Your task to perform on an android device: clear history in the chrome app Image 0: 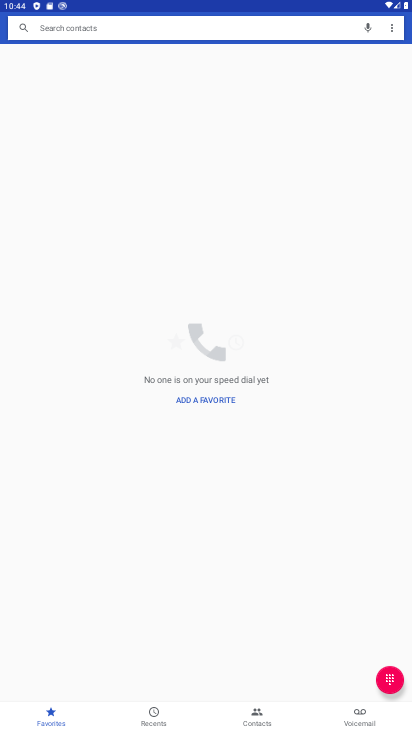
Step 0: press home button
Your task to perform on an android device: clear history in the chrome app Image 1: 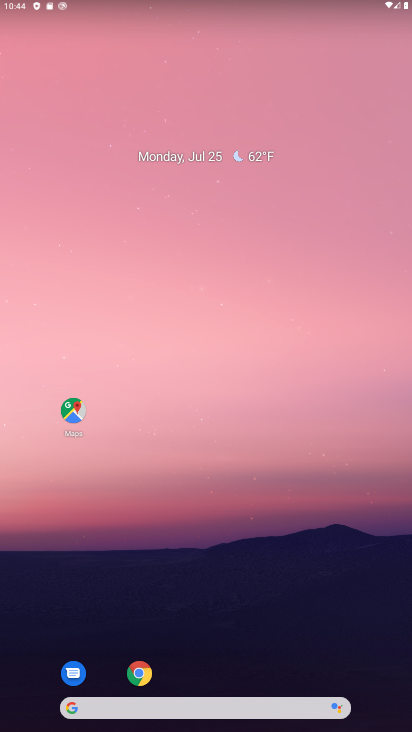
Step 1: click (142, 676)
Your task to perform on an android device: clear history in the chrome app Image 2: 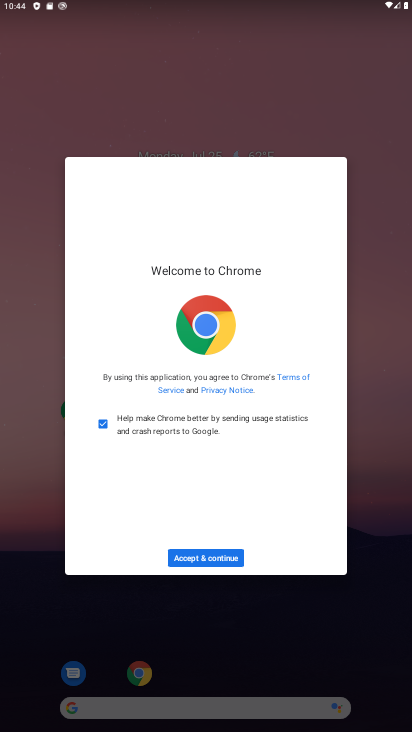
Step 2: click (196, 557)
Your task to perform on an android device: clear history in the chrome app Image 3: 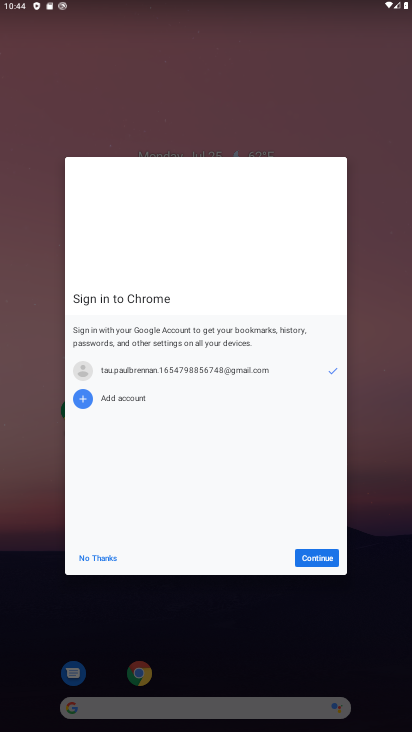
Step 3: click (305, 552)
Your task to perform on an android device: clear history in the chrome app Image 4: 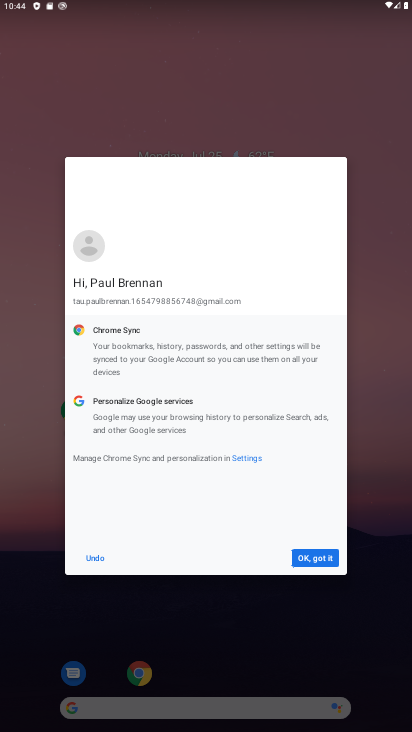
Step 4: click (305, 555)
Your task to perform on an android device: clear history in the chrome app Image 5: 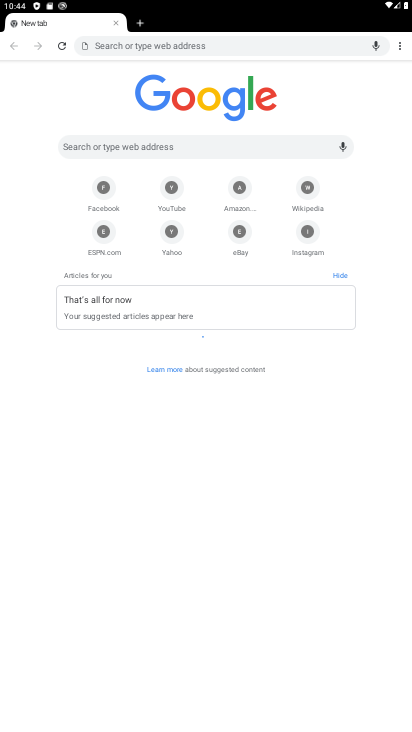
Step 5: click (396, 46)
Your task to perform on an android device: clear history in the chrome app Image 6: 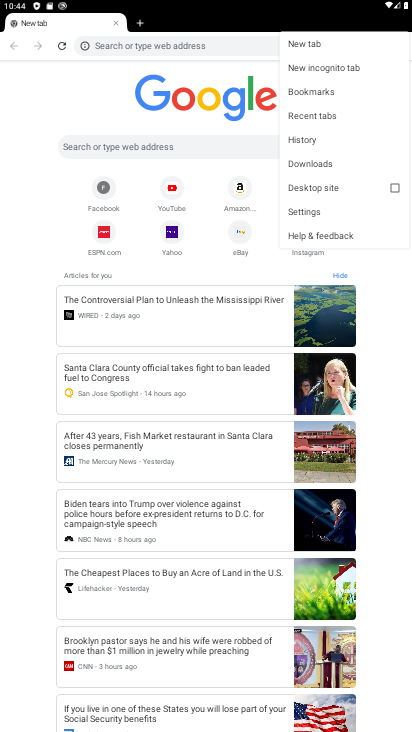
Step 6: click (303, 140)
Your task to perform on an android device: clear history in the chrome app Image 7: 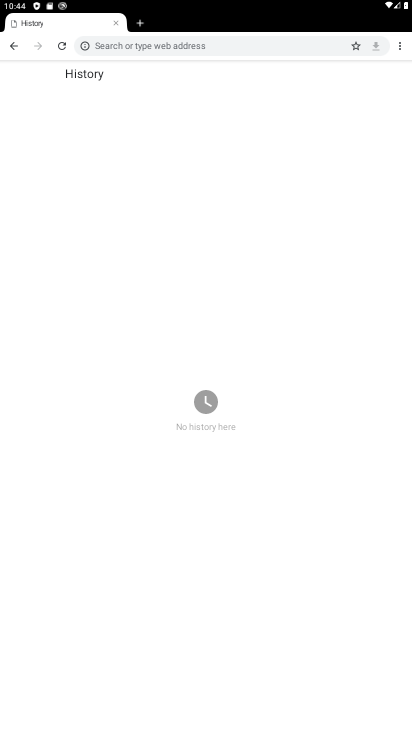
Step 7: task complete